Your task to perform on an android device: open app "Messenger Lite" Image 0: 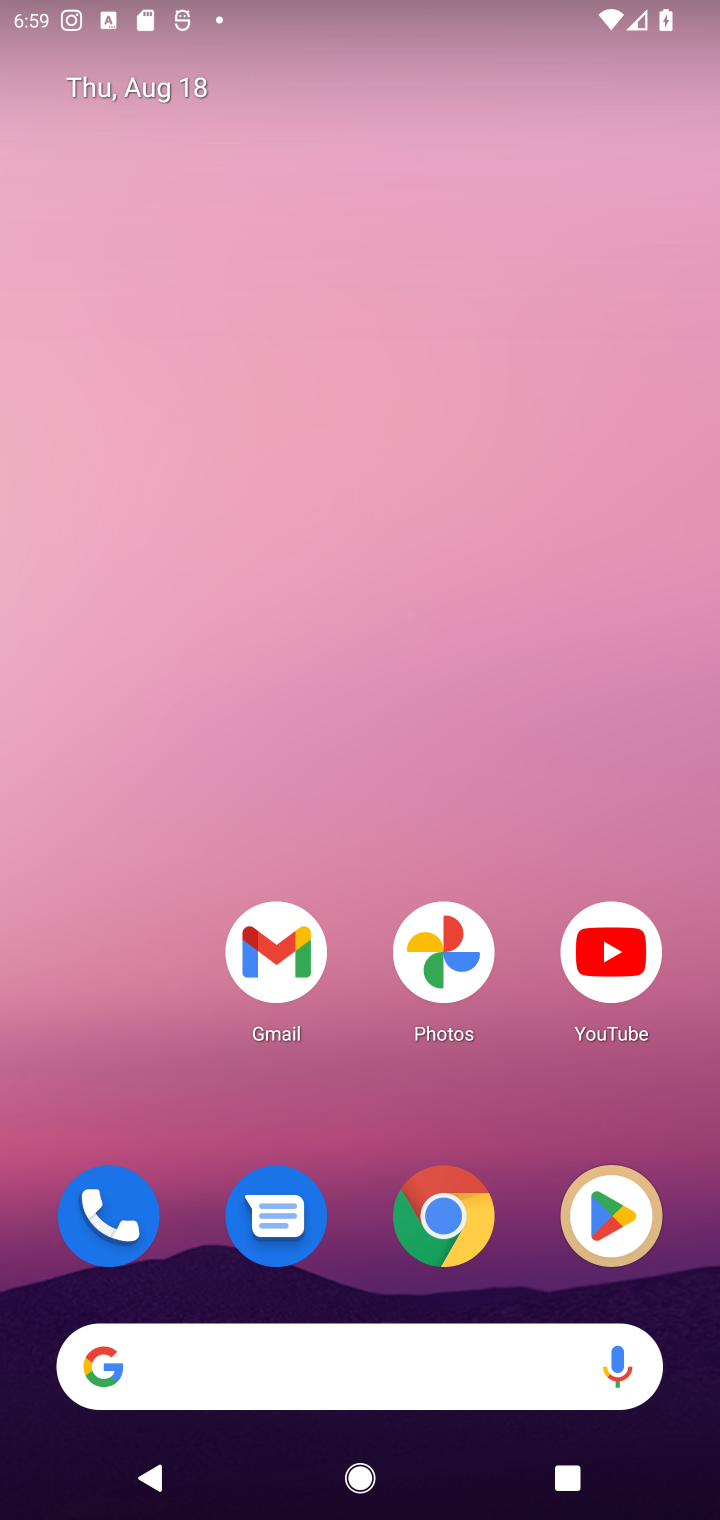
Step 0: click (596, 1217)
Your task to perform on an android device: open app "Messenger Lite" Image 1: 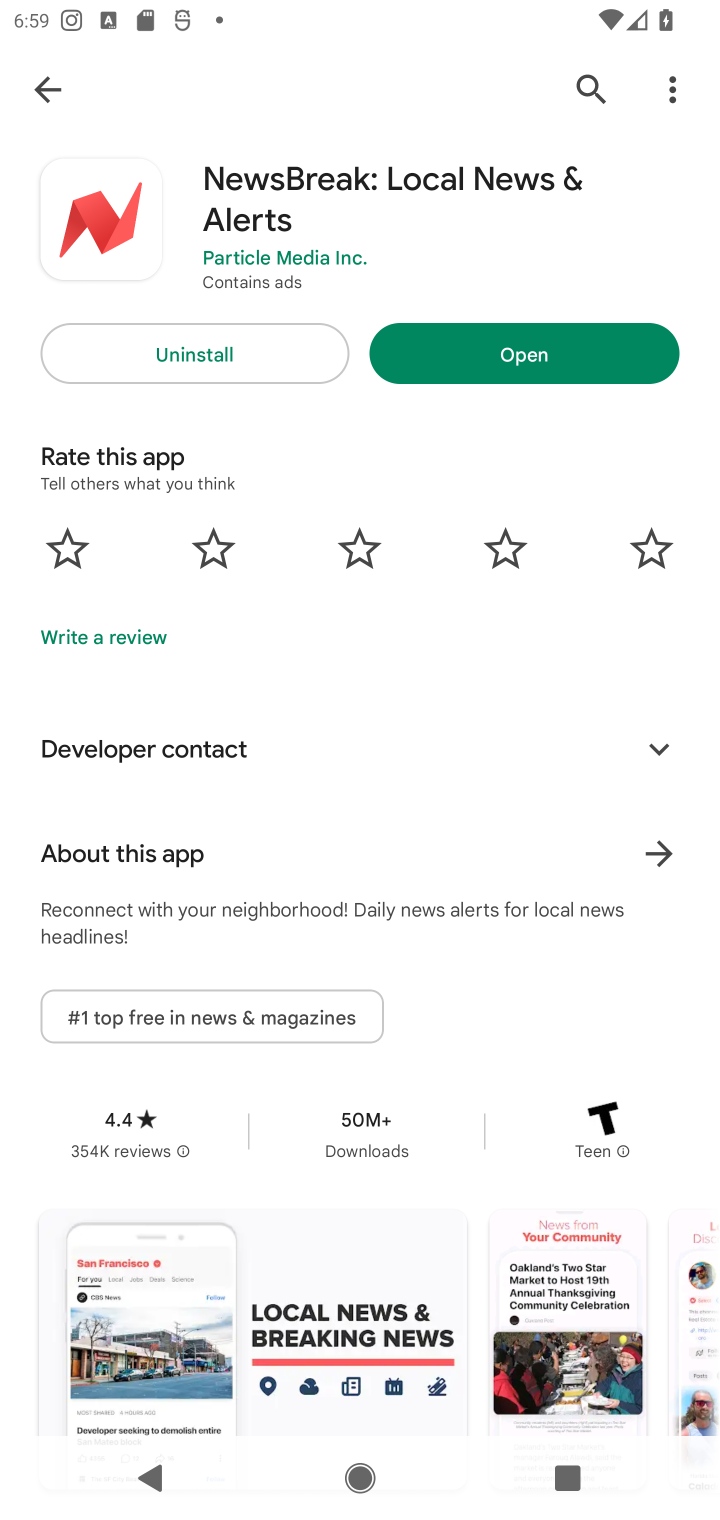
Step 1: click (582, 94)
Your task to perform on an android device: open app "Messenger Lite" Image 2: 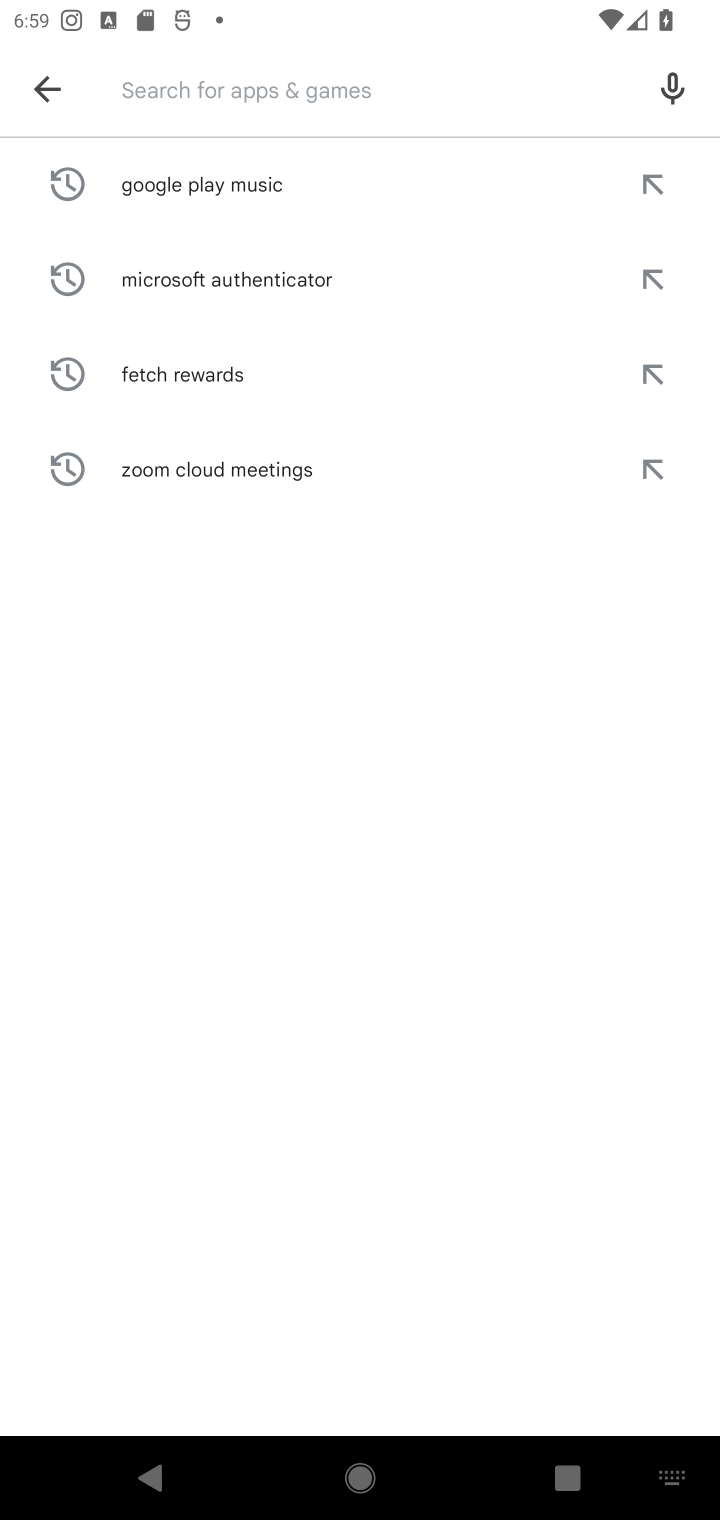
Step 2: type "Messenger Lite"
Your task to perform on an android device: open app "Messenger Lite" Image 3: 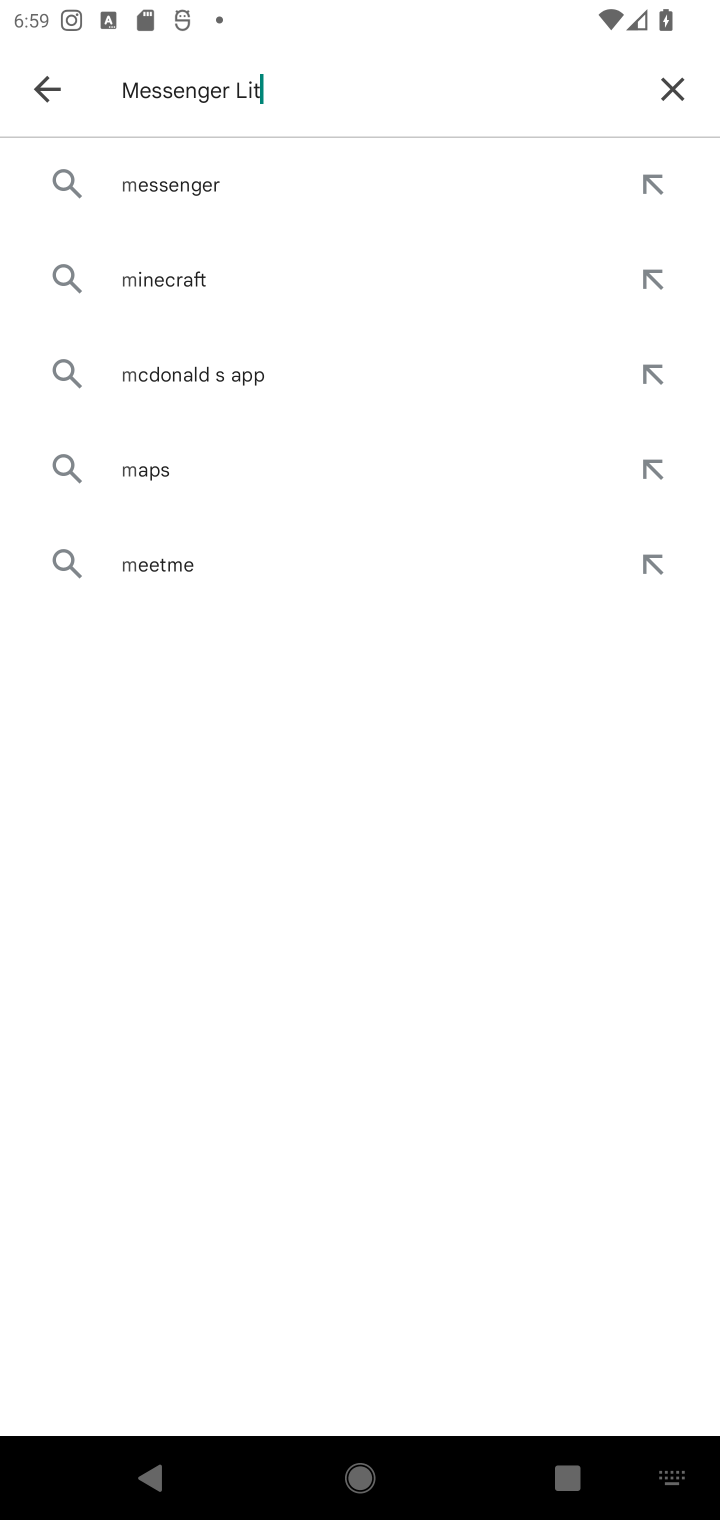
Step 3: type ""
Your task to perform on an android device: open app "Messenger Lite" Image 4: 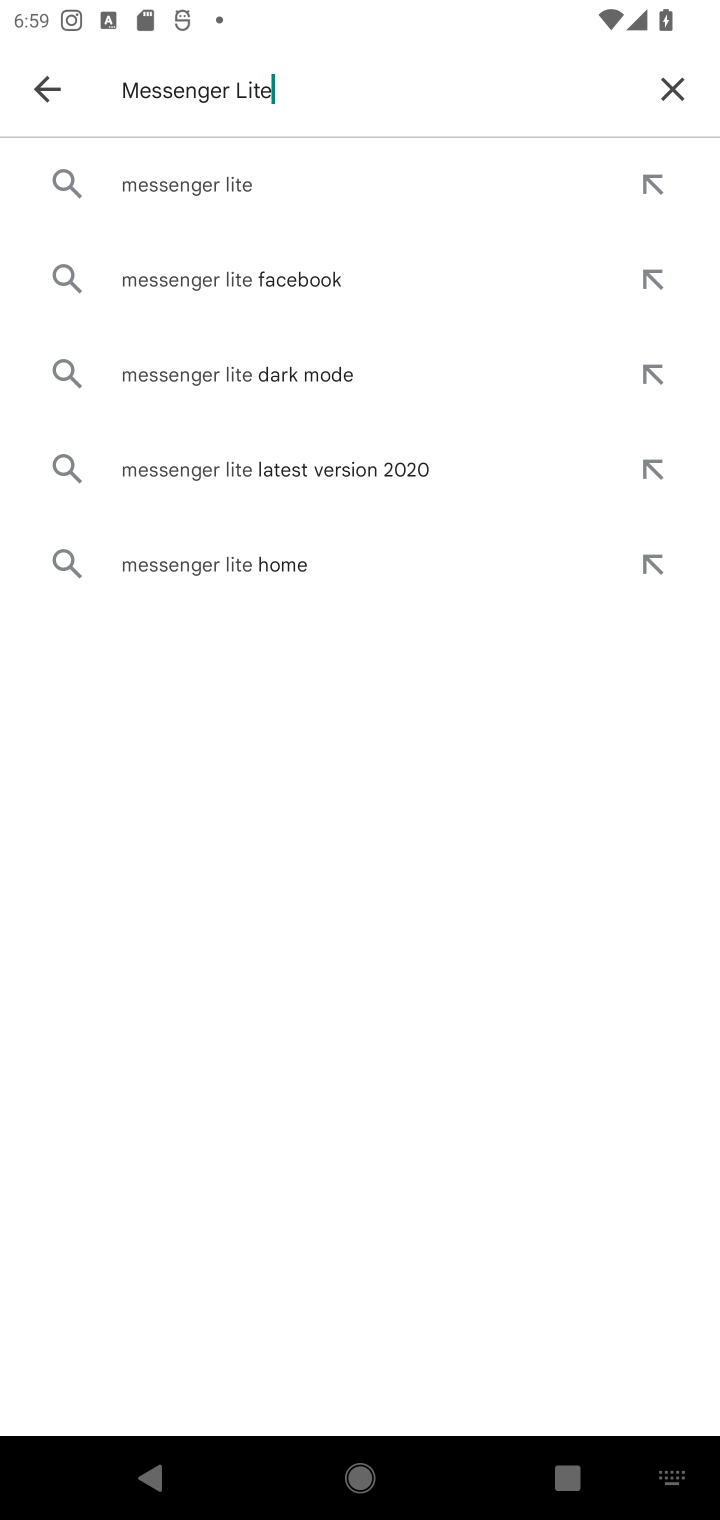
Step 4: click (245, 162)
Your task to perform on an android device: open app "Messenger Lite" Image 5: 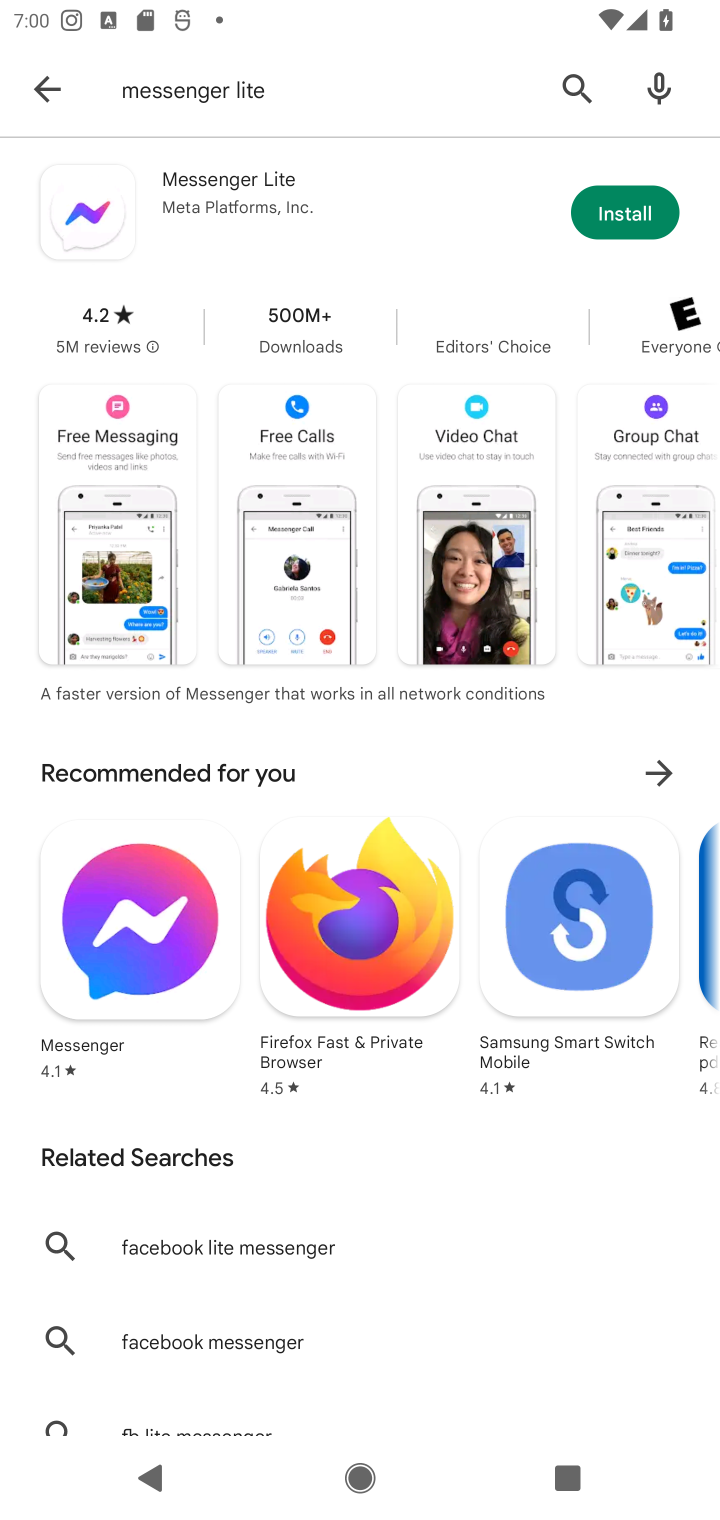
Step 5: click (329, 220)
Your task to perform on an android device: open app "Messenger Lite" Image 6: 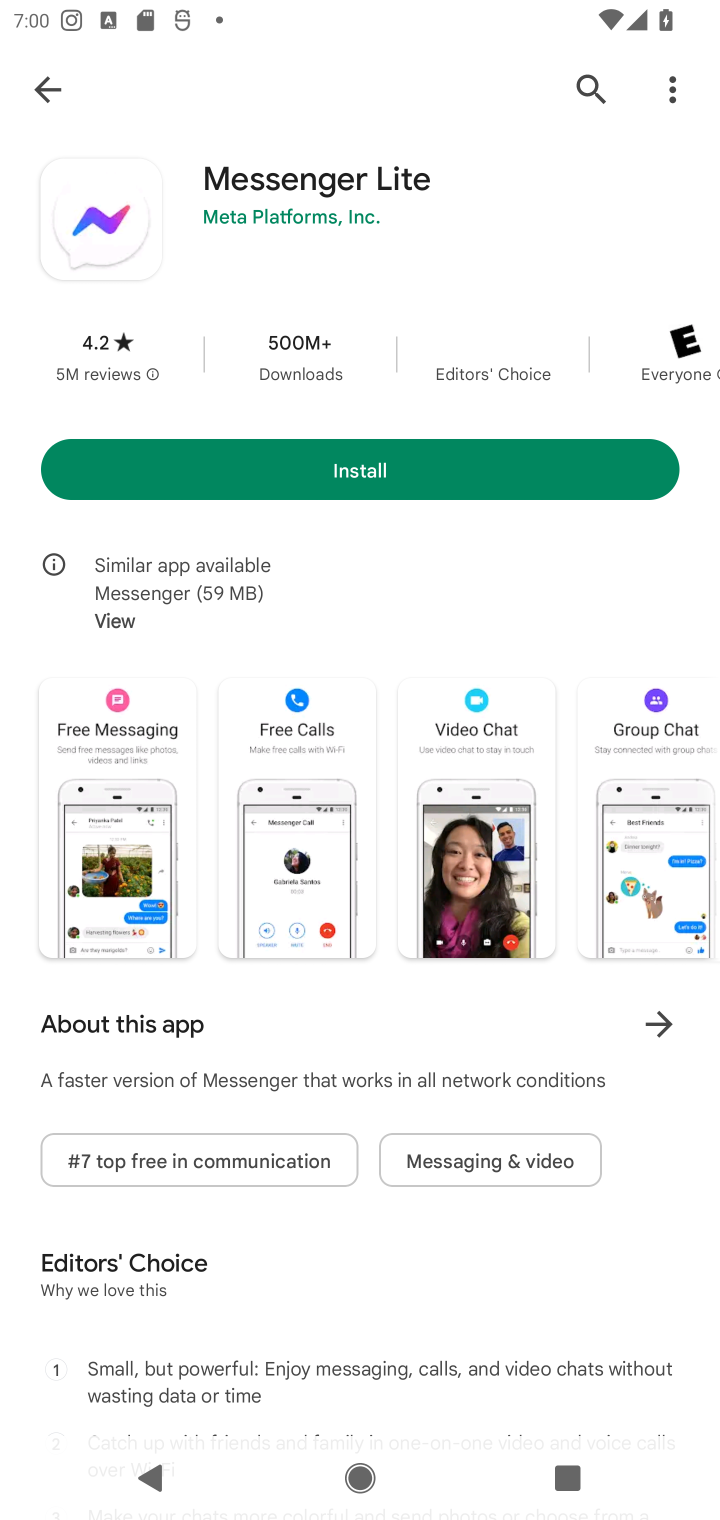
Step 6: task complete